Your task to perform on an android device: Open internet settings Image 0: 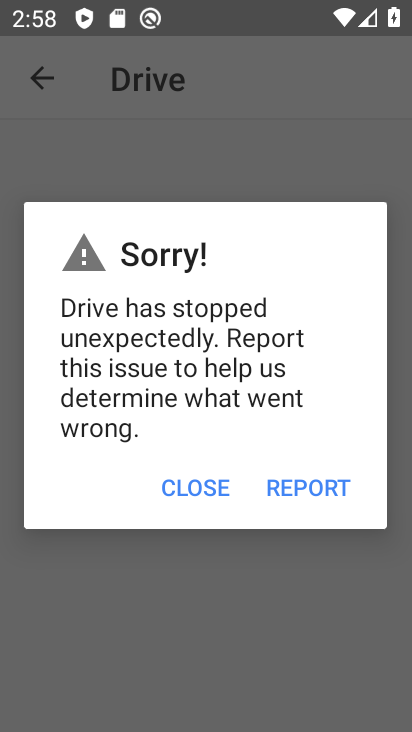
Step 0: press home button
Your task to perform on an android device: Open internet settings Image 1: 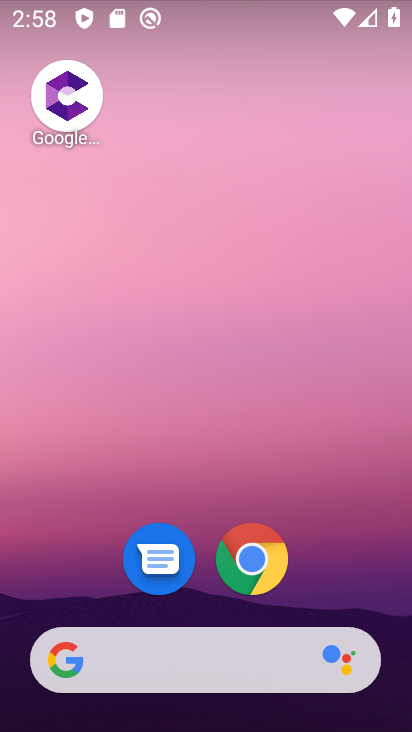
Step 1: drag from (250, 631) to (190, 2)
Your task to perform on an android device: Open internet settings Image 2: 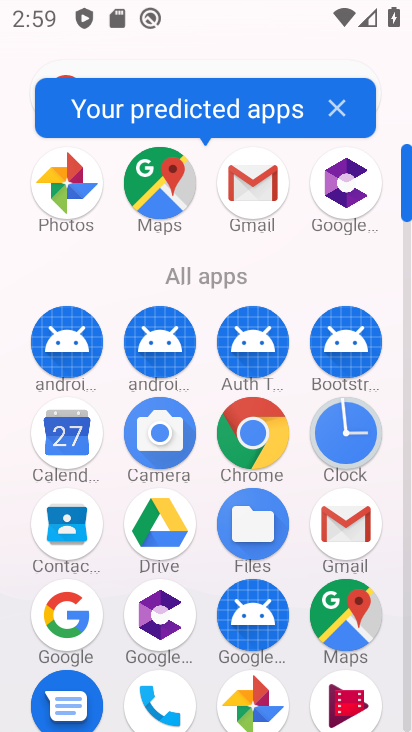
Step 2: drag from (293, 531) to (142, 45)
Your task to perform on an android device: Open internet settings Image 3: 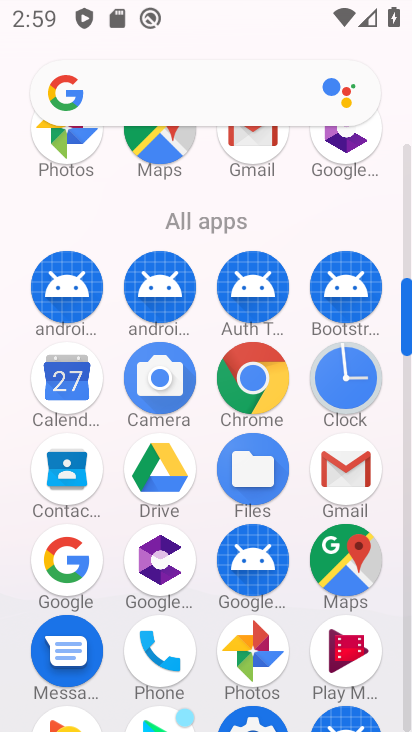
Step 3: drag from (297, 591) to (242, 0)
Your task to perform on an android device: Open internet settings Image 4: 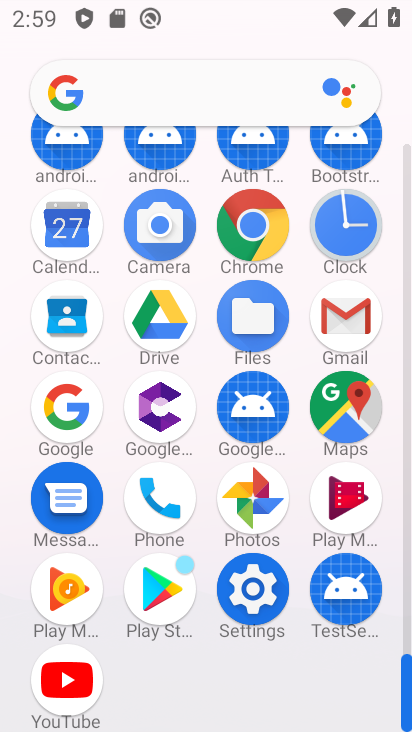
Step 4: click (256, 602)
Your task to perform on an android device: Open internet settings Image 5: 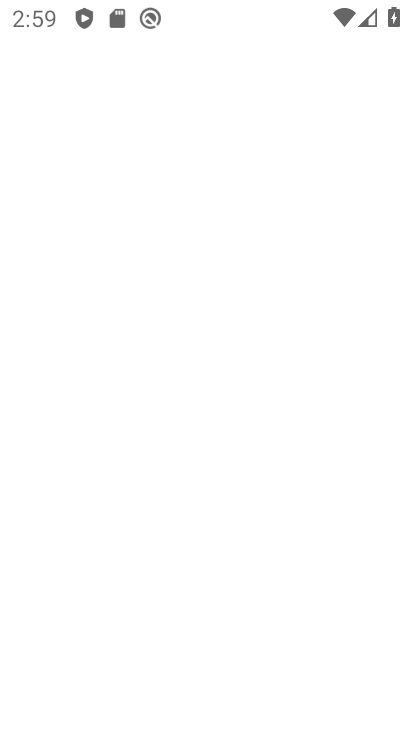
Step 5: click (256, 602)
Your task to perform on an android device: Open internet settings Image 6: 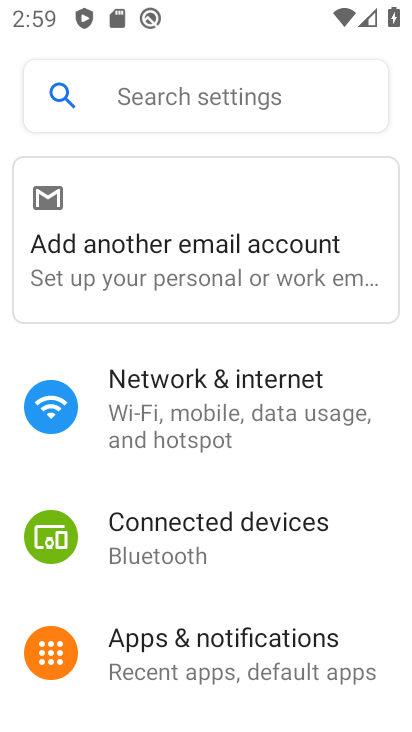
Step 6: click (213, 416)
Your task to perform on an android device: Open internet settings Image 7: 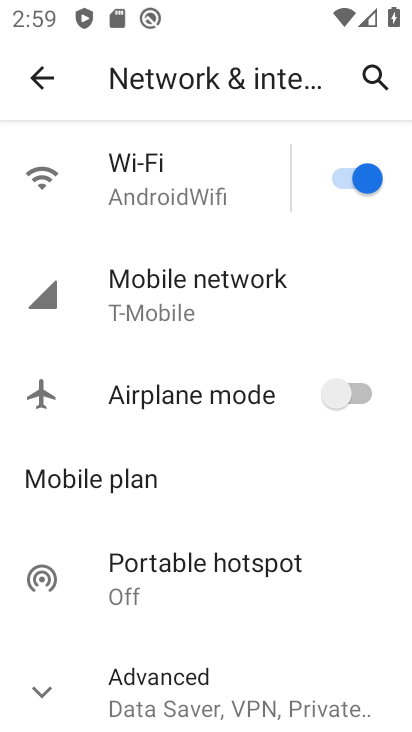
Step 7: click (198, 310)
Your task to perform on an android device: Open internet settings Image 8: 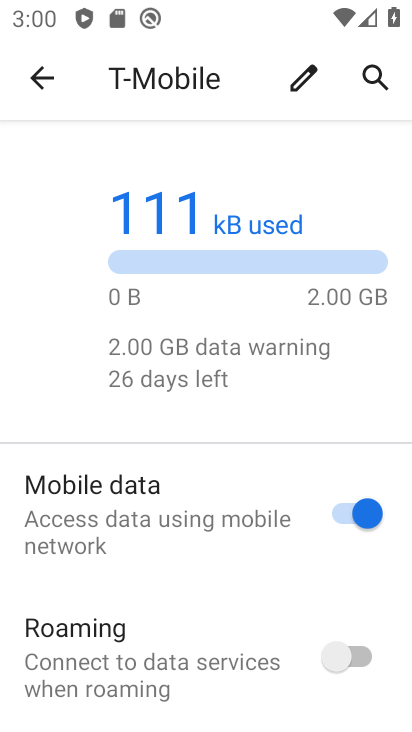
Step 8: task complete